Your task to perform on an android device: set default search engine in the chrome app Image 0: 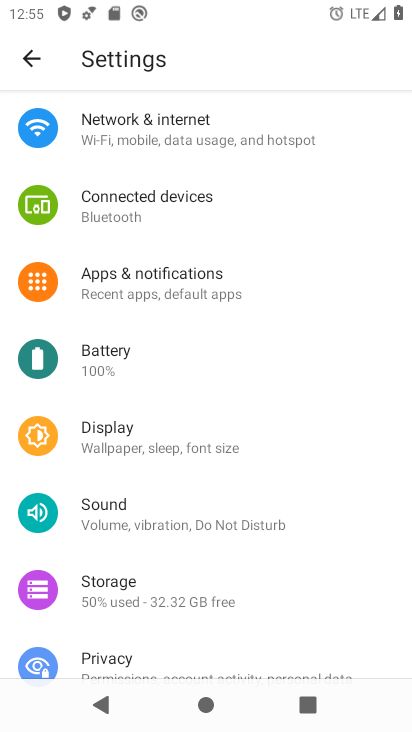
Step 0: press home button
Your task to perform on an android device: set default search engine in the chrome app Image 1: 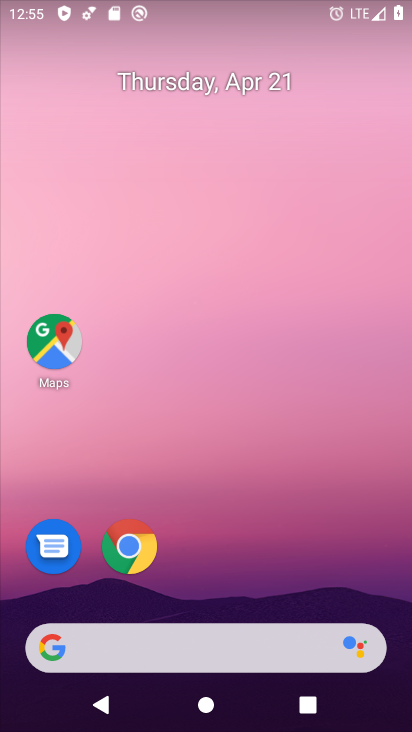
Step 1: click (119, 539)
Your task to perform on an android device: set default search engine in the chrome app Image 2: 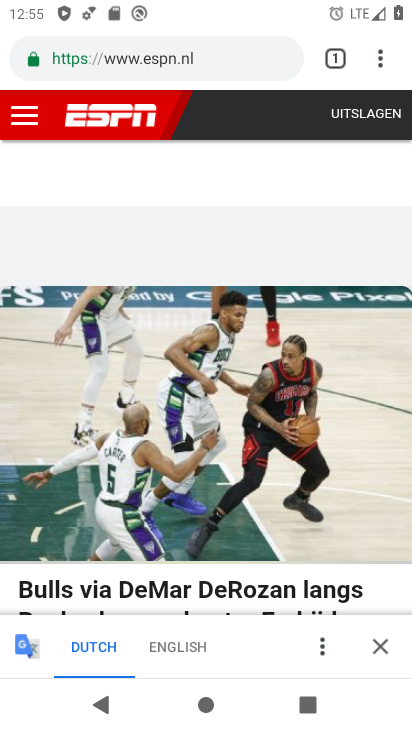
Step 2: drag from (385, 55) to (236, 563)
Your task to perform on an android device: set default search engine in the chrome app Image 3: 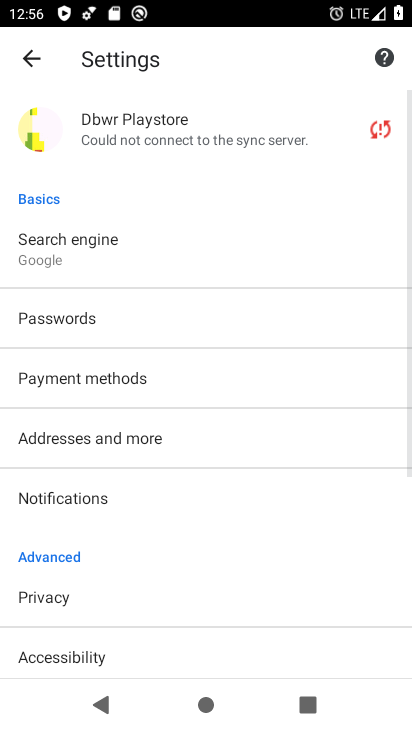
Step 3: click (94, 248)
Your task to perform on an android device: set default search engine in the chrome app Image 4: 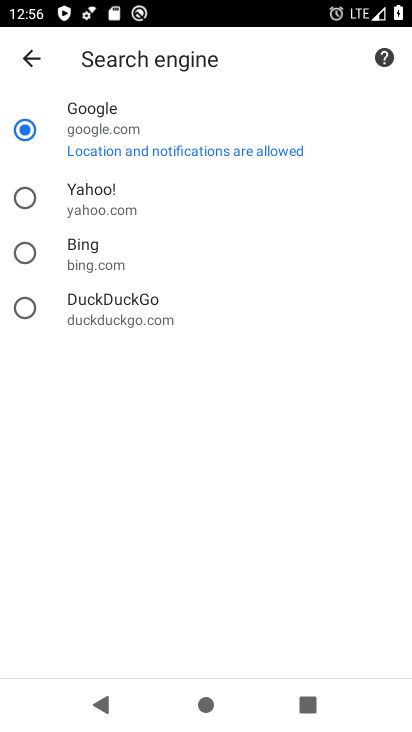
Step 4: click (160, 206)
Your task to perform on an android device: set default search engine in the chrome app Image 5: 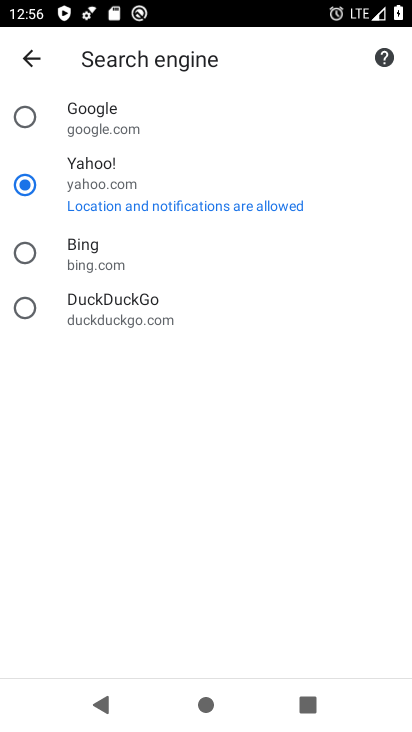
Step 5: task complete